Your task to perform on an android device: turn on location history Image 0: 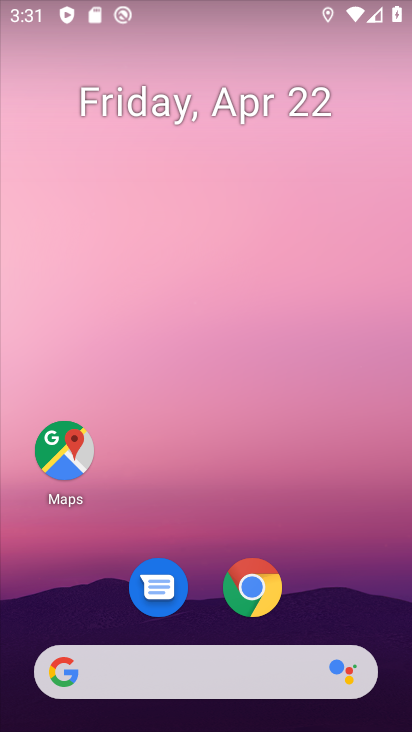
Step 0: drag from (202, 520) to (232, 23)
Your task to perform on an android device: turn on location history Image 1: 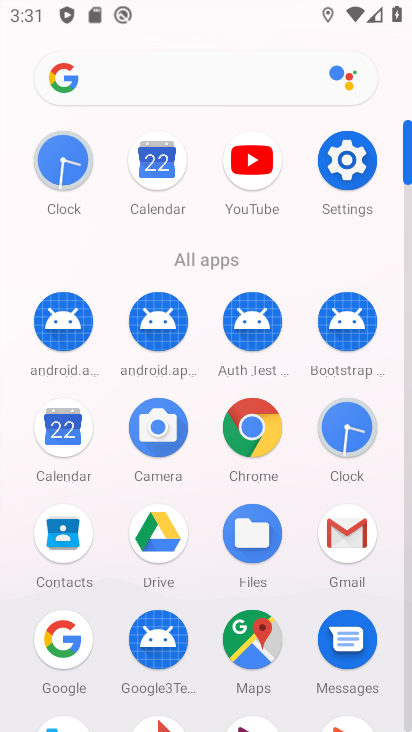
Step 1: click (352, 162)
Your task to perform on an android device: turn on location history Image 2: 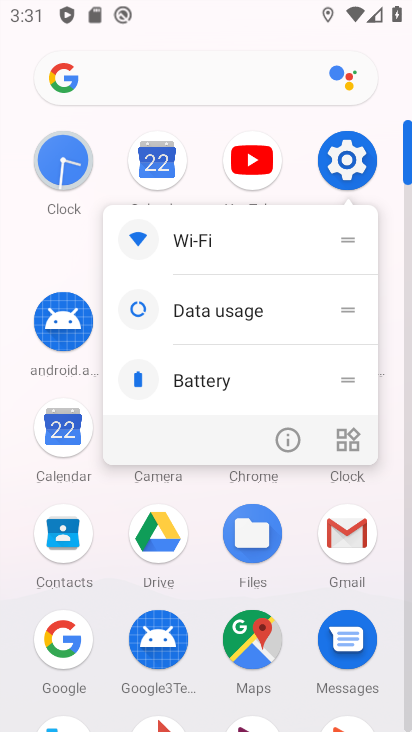
Step 2: click (343, 157)
Your task to perform on an android device: turn on location history Image 3: 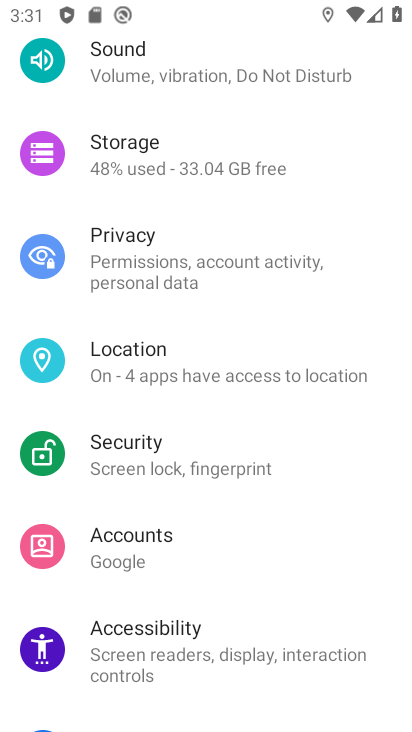
Step 3: click (217, 375)
Your task to perform on an android device: turn on location history Image 4: 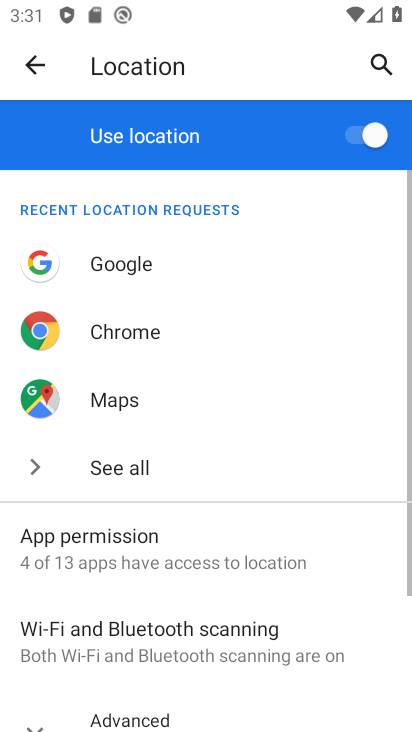
Step 4: drag from (220, 561) to (251, 403)
Your task to perform on an android device: turn on location history Image 5: 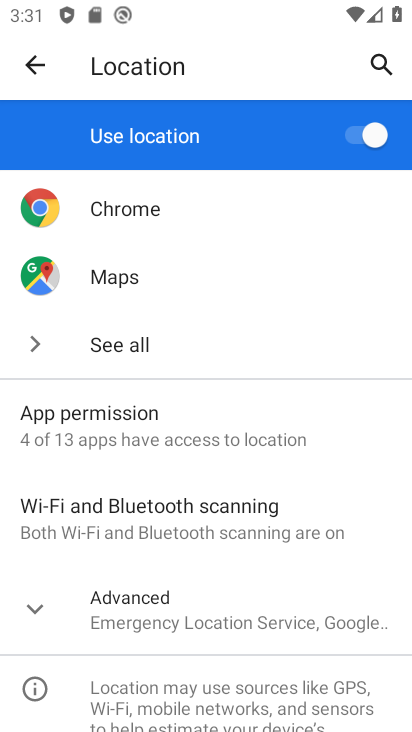
Step 5: click (243, 620)
Your task to perform on an android device: turn on location history Image 6: 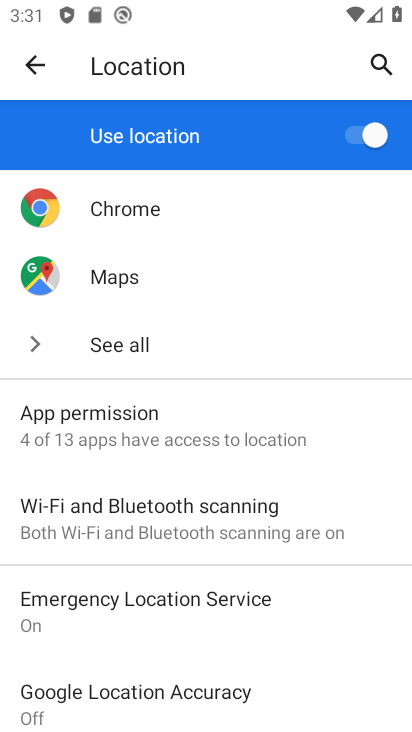
Step 6: drag from (189, 621) to (225, 504)
Your task to perform on an android device: turn on location history Image 7: 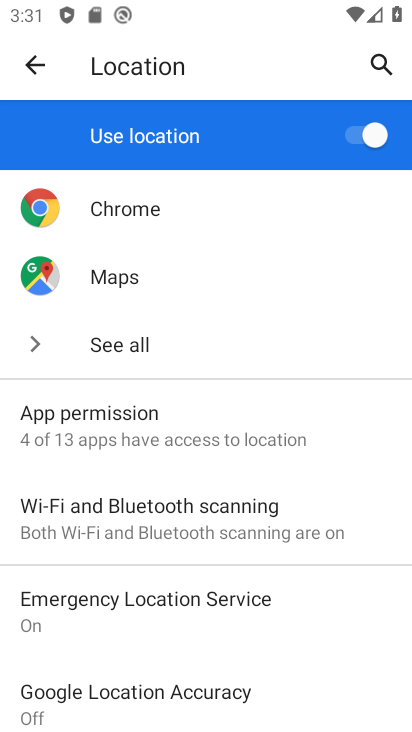
Step 7: drag from (250, 606) to (308, 426)
Your task to perform on an android device: turn on location history Image 8: 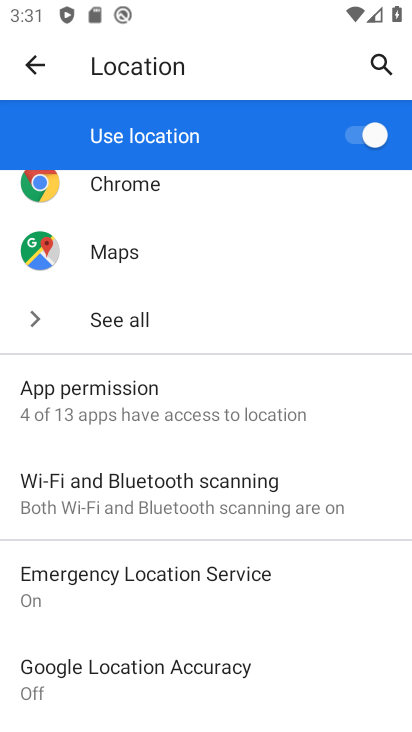
Step 8: drag from (287, 687) to (333, 282)
Your task to perform on an android device: turn on location history Image 9: 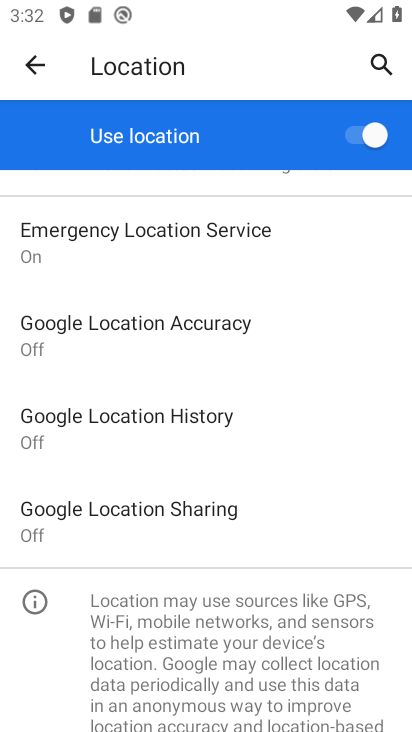
Step 9: click (156, 412)
Your task to perform on an android device: turn on location history Image 10: 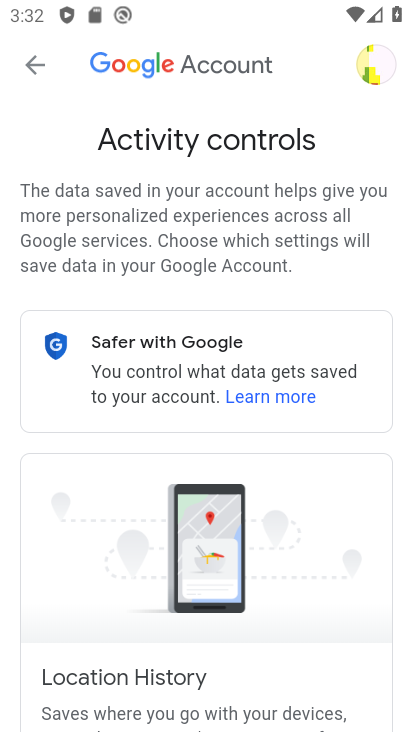
Step 10: task complete